Your task to perform on an android device: Open the stopwatch Image 0: 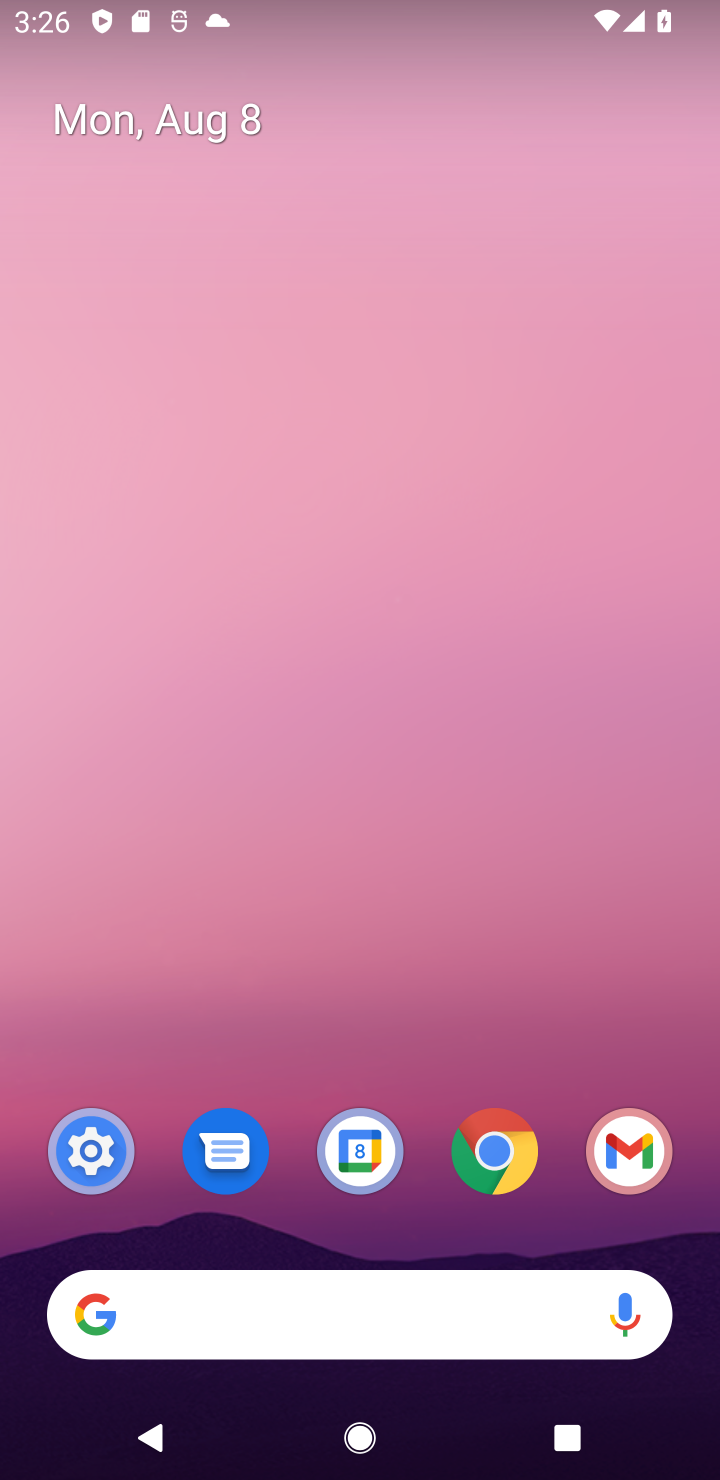
Step 0: drag from (390, 820) to (403, 131)
Your task to perform on an android device: Open the stopwatch Image 1: 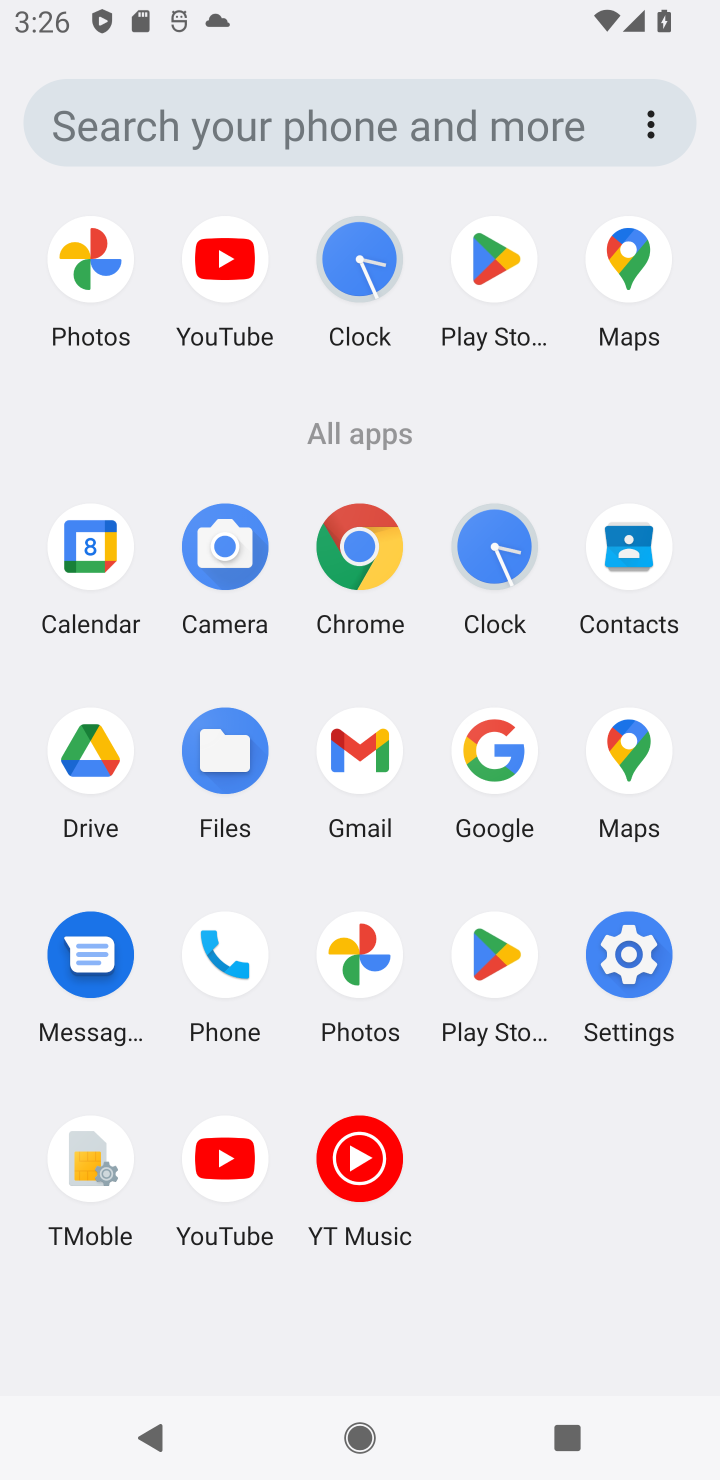
Step 1: click (380, 276)
Your task to perform on an android device: Open the stopwatch Image 2: 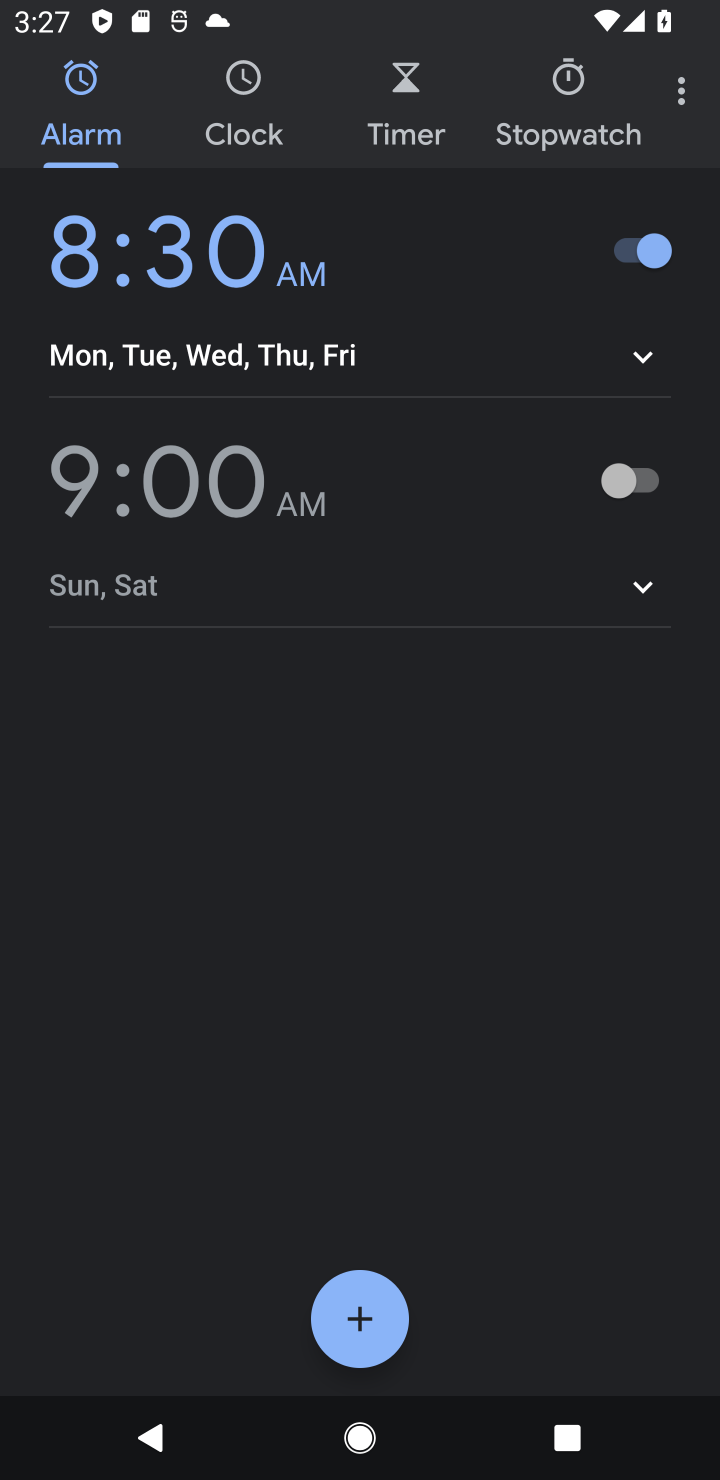
Step 2: click (554, 137)
Your task to perform on an android device: Open the stopwatch Image 3: 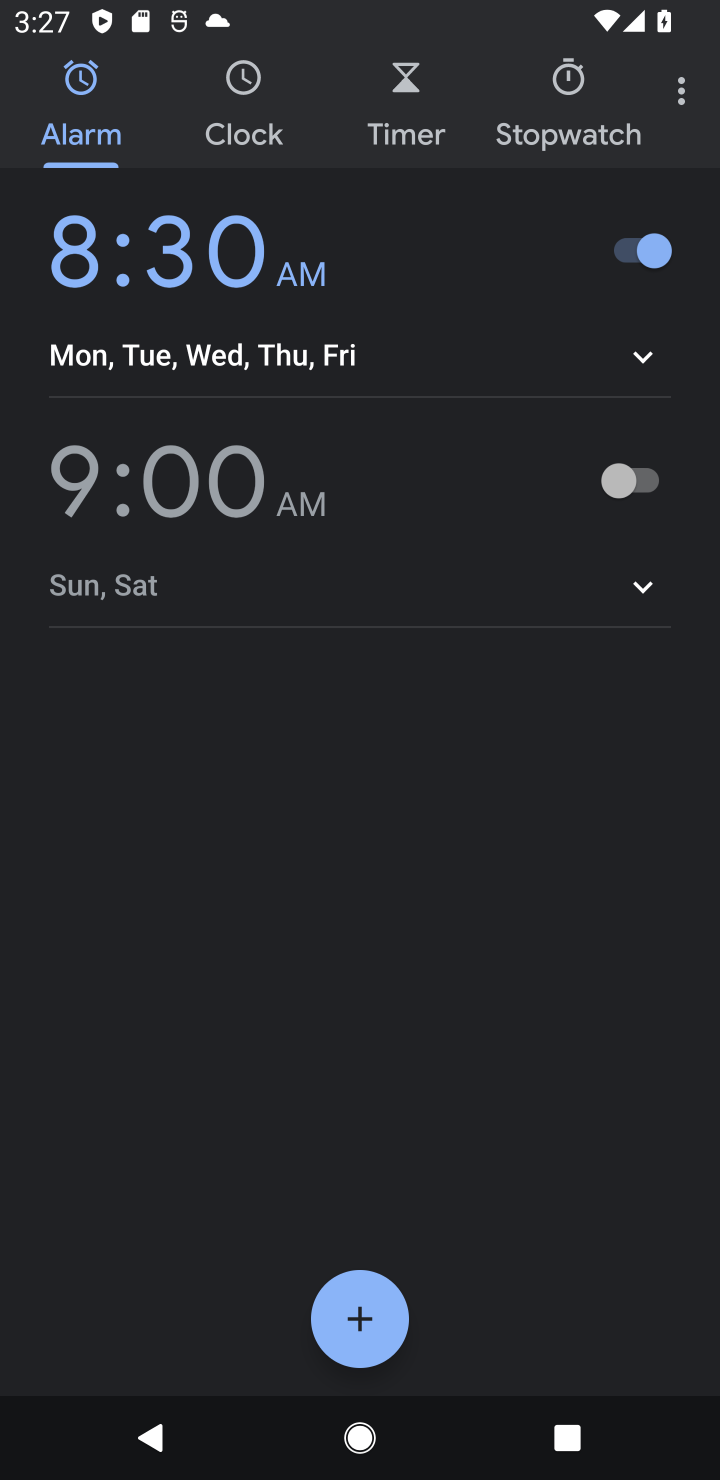
Step 3: click (549, 98)
Your task to perform on an android device: Open the stopwatch Image 4: 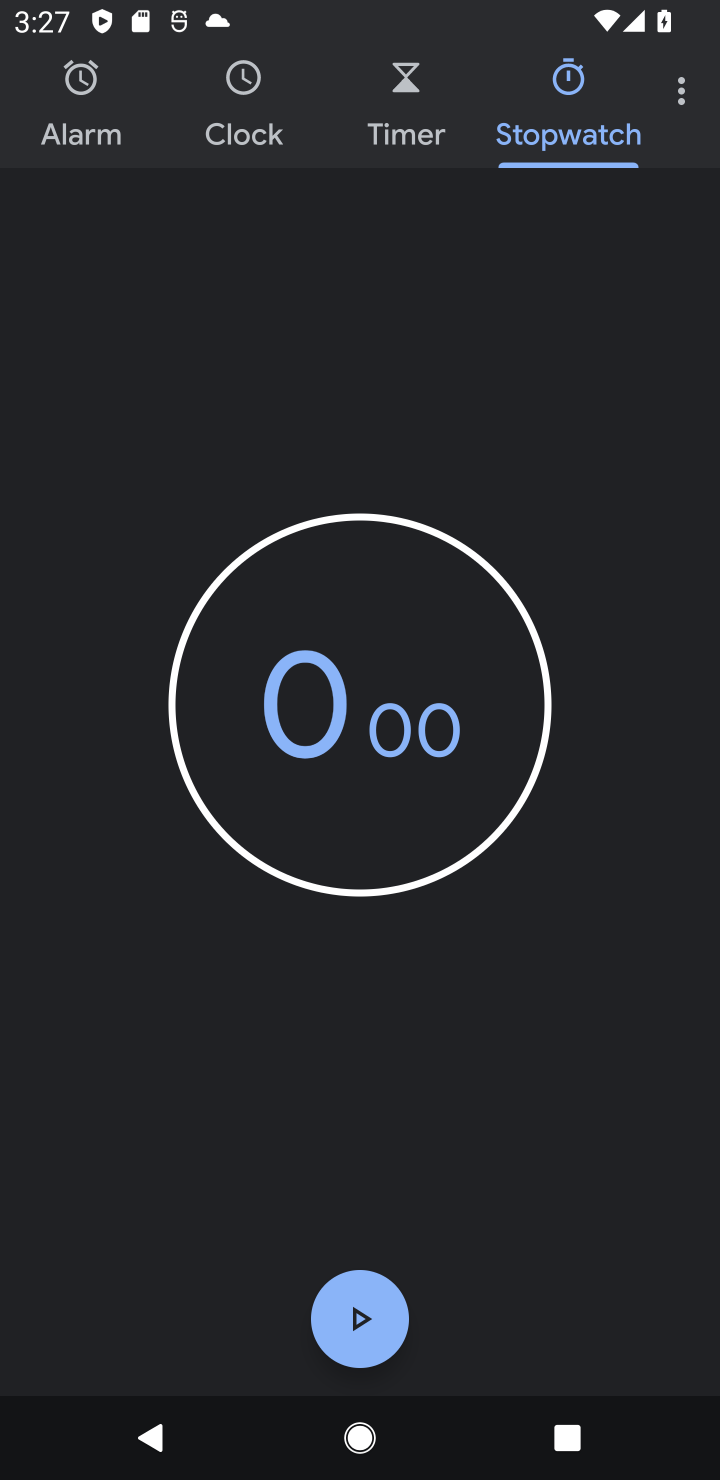
Step 4: task complete